Your task to perform on an android device: Open Chrome and go to the settings page Image 0: 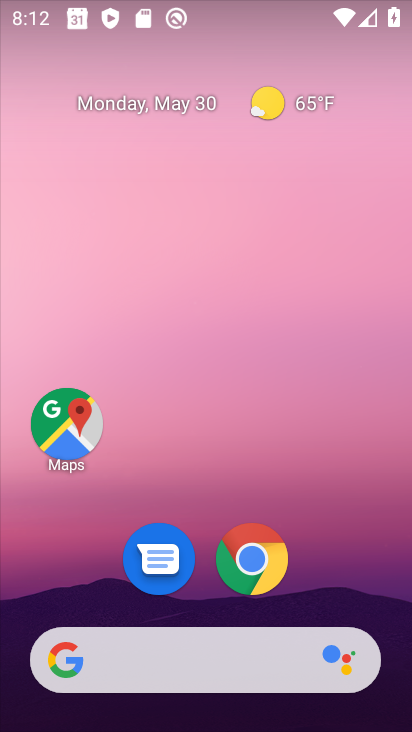
Step 0: drag from (188, 523) to (198, 149)
Your task to perform on an android device: Open Chrome and go to the settings page Image 1: 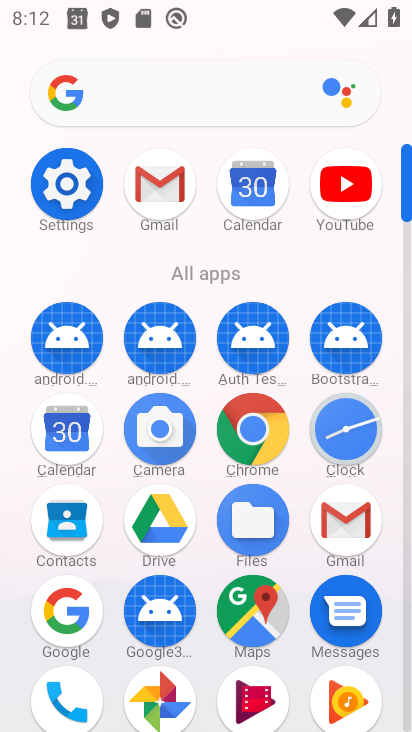
Step 1: click (258, 433)
Your task to perform on an android device: Open Chrome and go to the settings page Image 2: 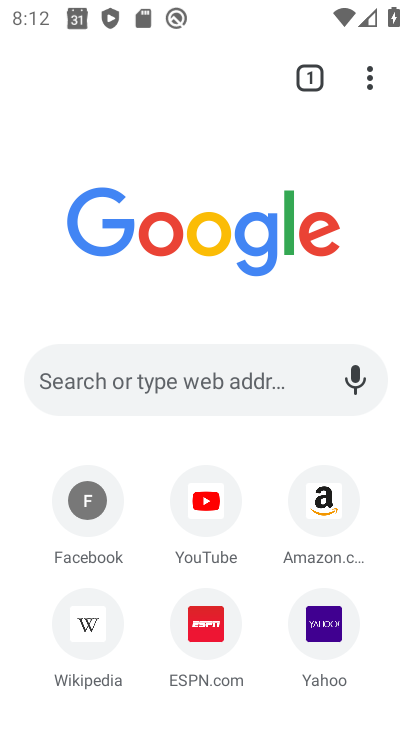
Step 2: task complete